Your task to perform on an android device: set the timer Image 0: 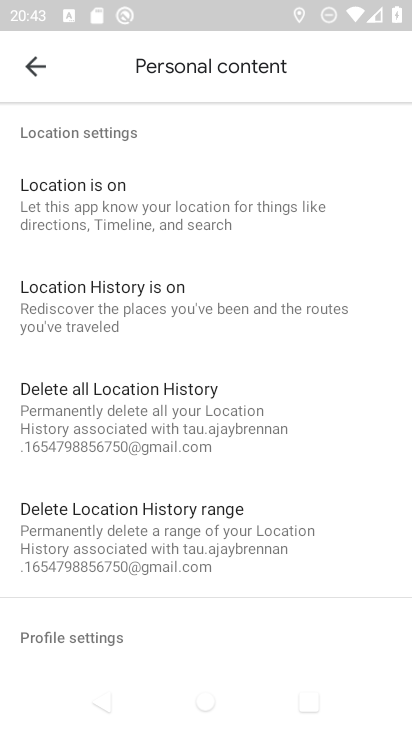
Step 0: press home button
Your task to perform on an android device: set the timer Image 1: 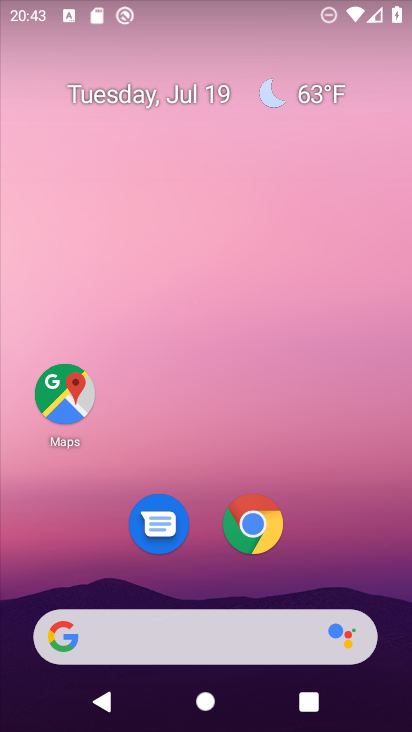
Step 1: drag from (330, 534) to (303, 33)
Your task to perform on an android device: set the timer Image 2: 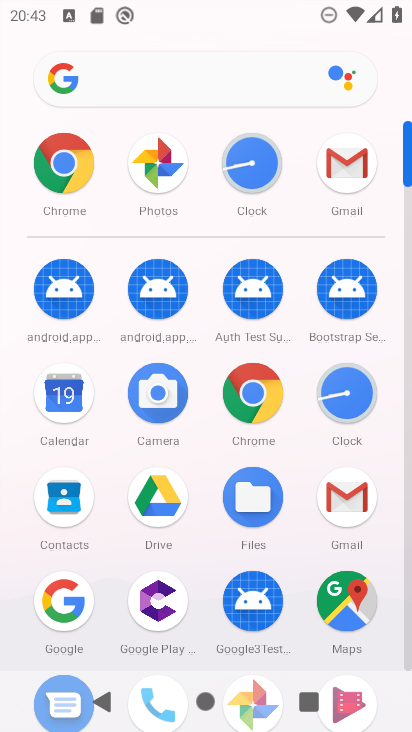
Step 2: click (265, 171)
Your task to perform on an android device: set the timer Image 3: 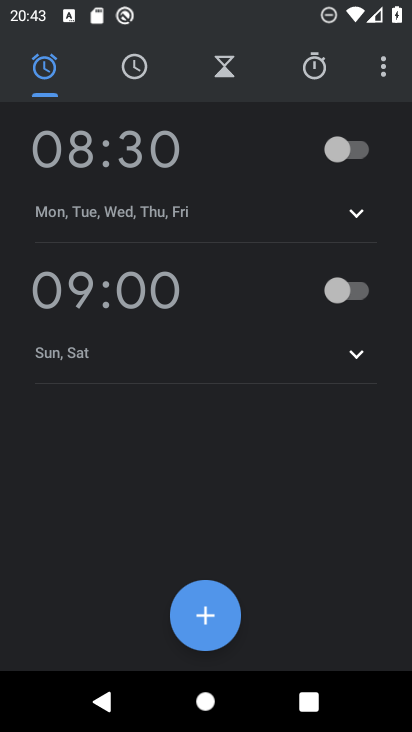
Step 3: click (227, 71)
Your task to perform on an android device: set the timer Image 4: 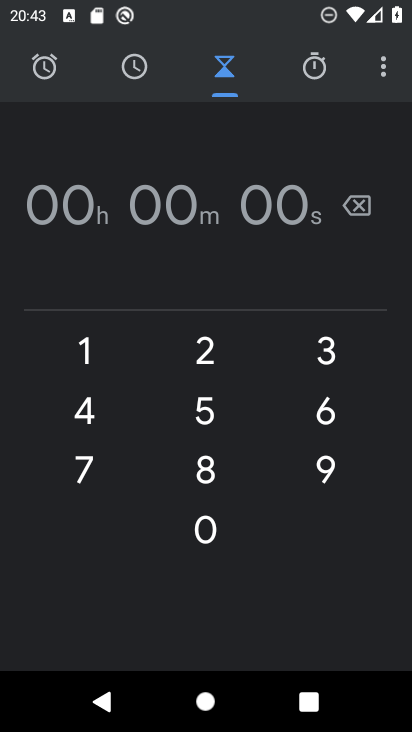
Step 4: click (91, 349)
Your task to perform on an android device: set the timer Image 5: 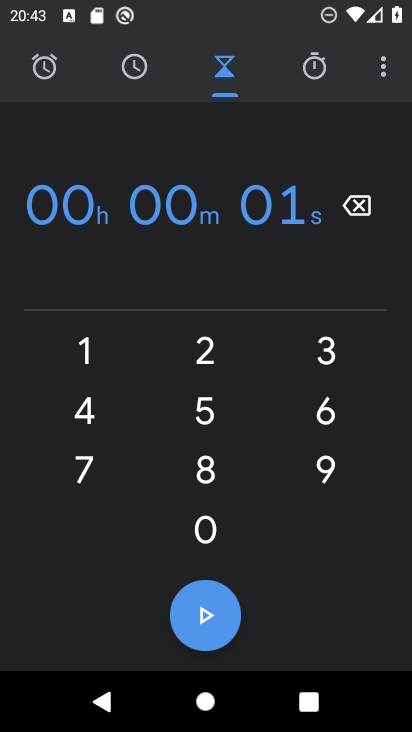
Step 5: task complete